Your task to perform on an android device: find snoozed emails in the gmail app Image 0: 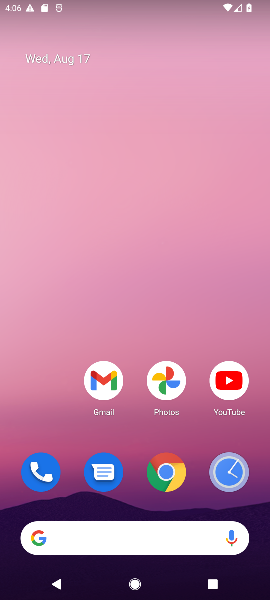
Step 0: click (100, 383)
Your task to perform on an android device: find snoozed emails in the gmail app Image 1: 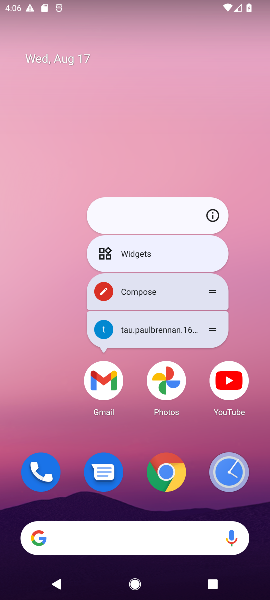
Step 1: click (105, 383)
Your task to perform on an android device: find snoozed emails in the gmail app Image 2: 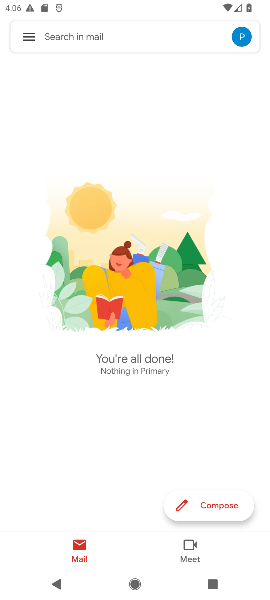
Step 2: click (32, 35)
Your task to perform on an android device: find snoozed emails in the gmail app Image 3: 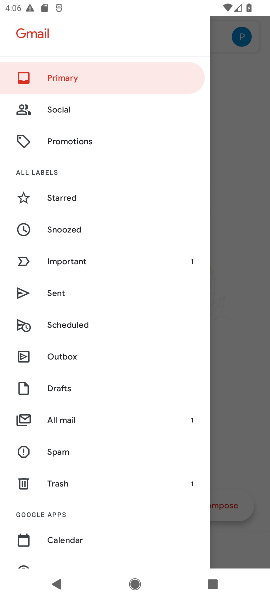
Step 3: click (72, 230)
Your task to perform on an android device: find snoozed emails in the gmail app Image 4: 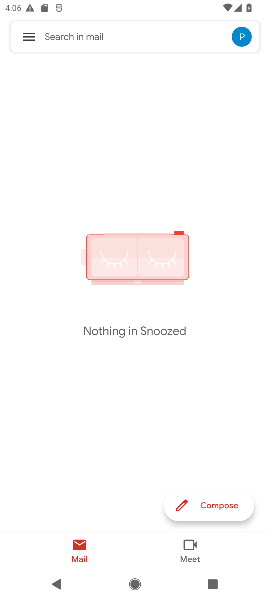
Step 4: task complete